Your task to perform on an android device: Search for the best rated headphones on Walmart Image 0: 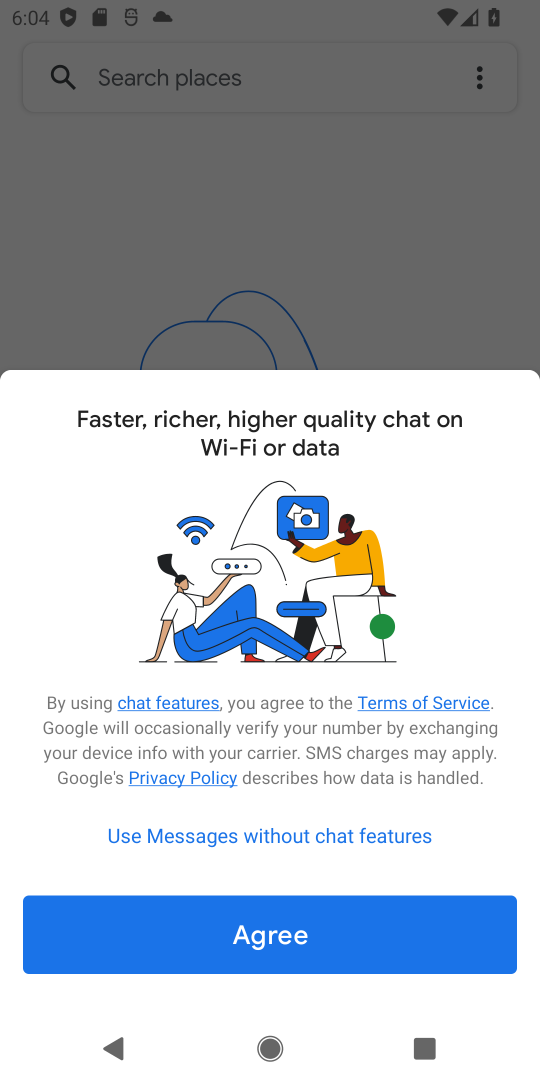
Step 0: press home button
Your task to perform on an android device: Search for the best rated headphones on Walmart Image 1: 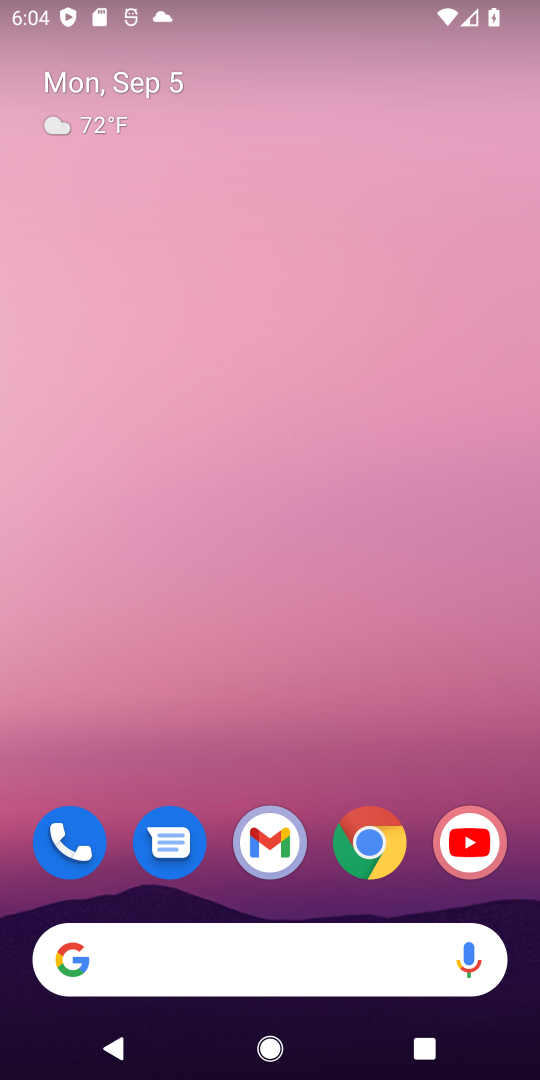
Step 1: click (367, 838)
Your task to perform on an android device: Search for the best rated headphones on Walmart Image 2: 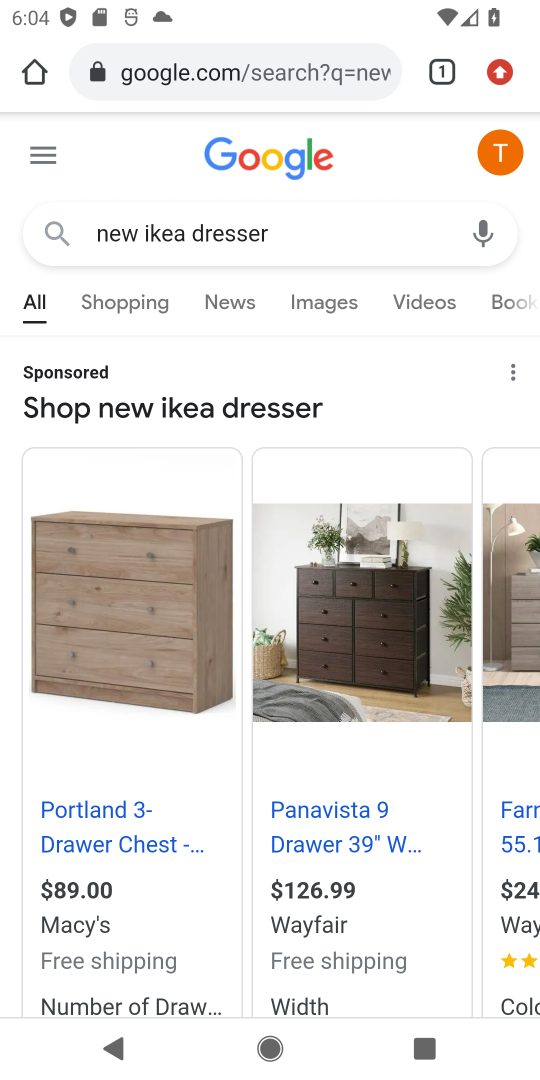
Step 2: click (388, 228)
Your task to perform on an android device: Search for the best rated headphones on Walmart Image 3: 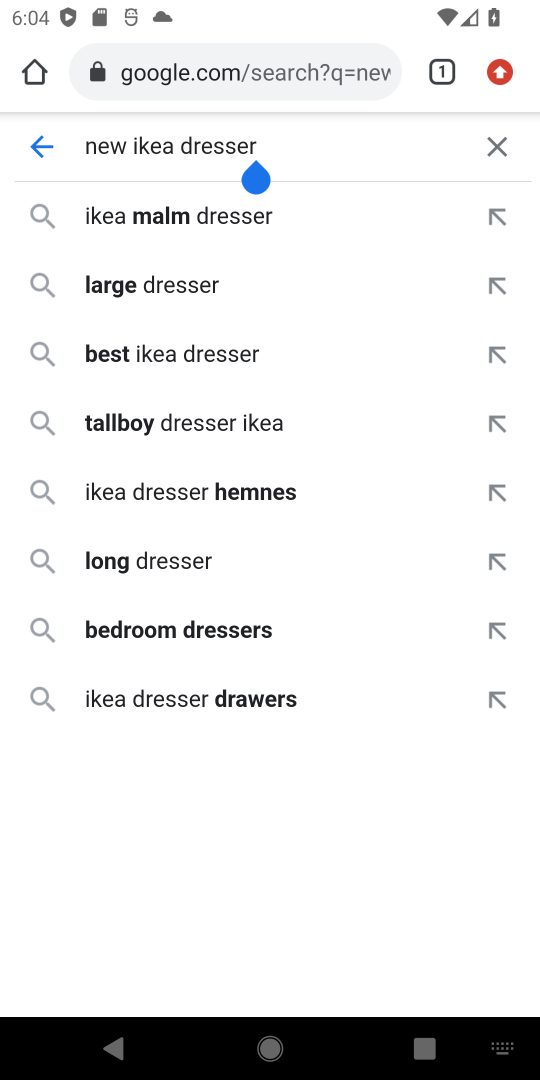
Step 3: click (322, 72)
Your task to perform on an android device: Search for the best rated headphones on Walmart Image 4: 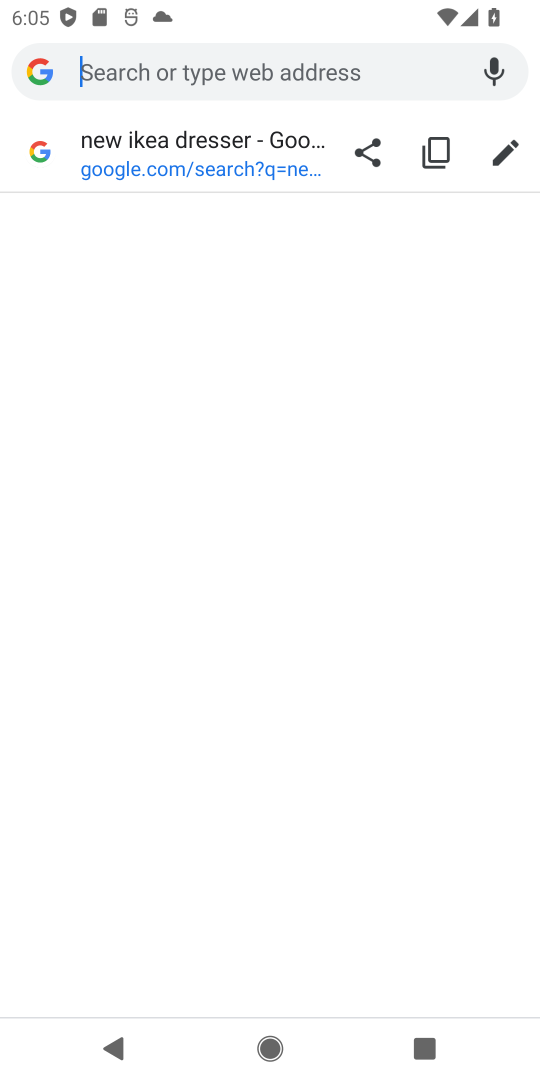
Step 4: type "Walamrt"
Your task to perform on an android device: Search for the best rated headphones on Walmart Image 5: 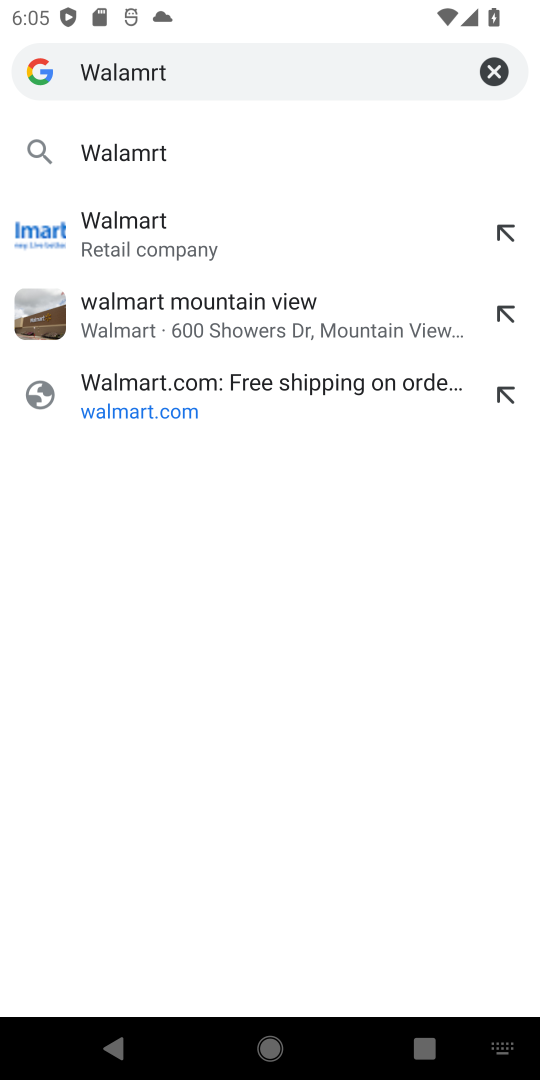
Step 5: click (144, 161)
Your task to perform on an android device: Search for the best rated headphones on Walmart Image 6: 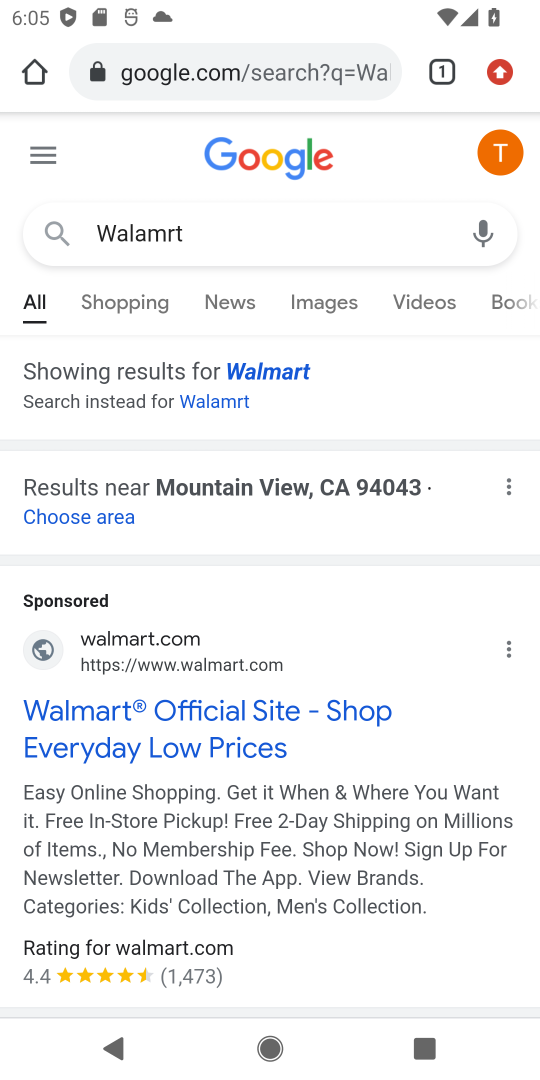
Step 6: drag from (316, 661) to (354, 377)
Your task to perform on an android device: Search for the best rated headphones on Walmart Image 7: 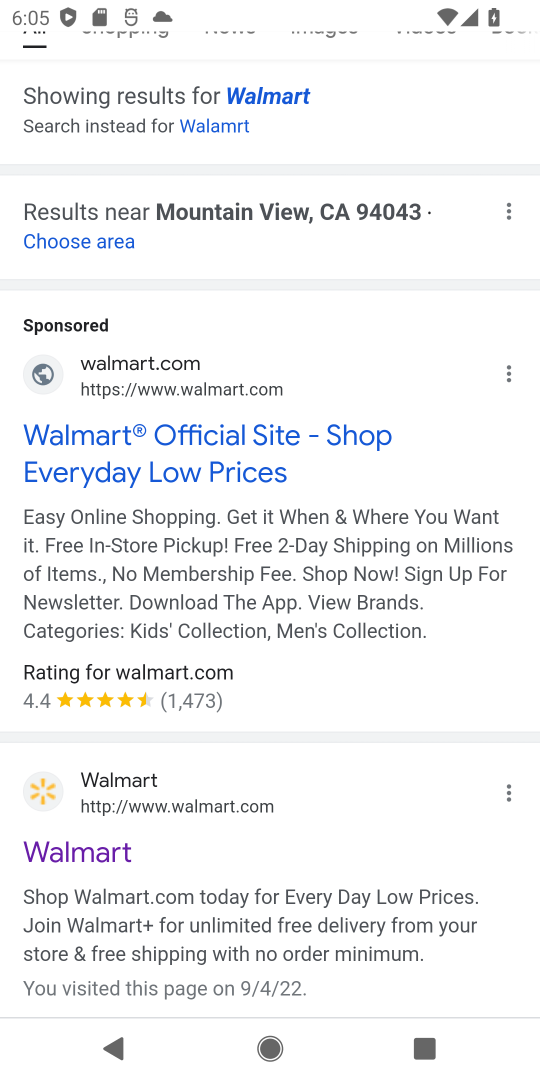
Step 7: click (164, 857)
Your task to perform on an android device: Search for the best rated headphones on Walmart Image 8: 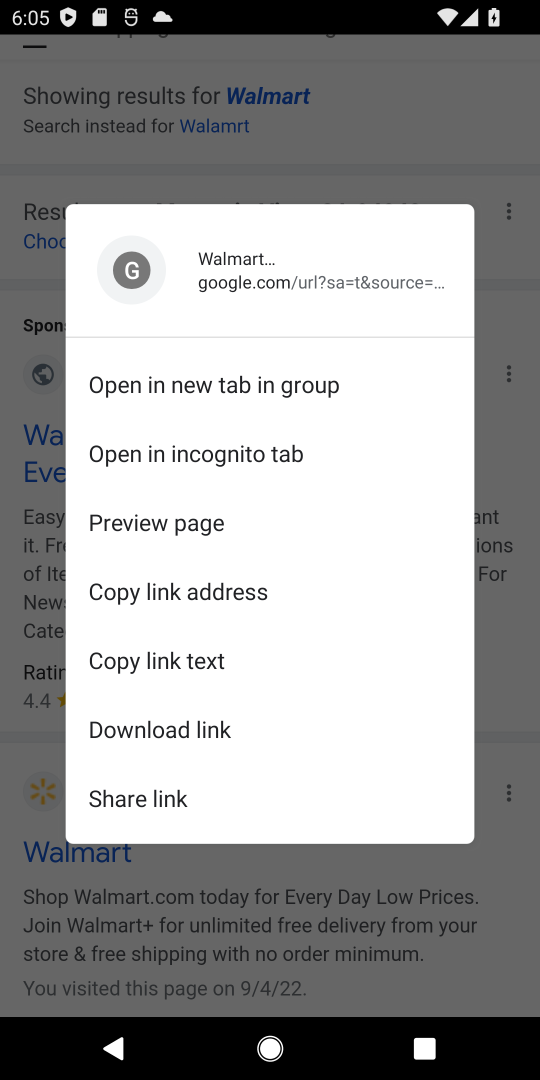
Step 8: click (164, 857)
Your task to perform on an android device: Search for the best rated headphones on Walmart Image 9: 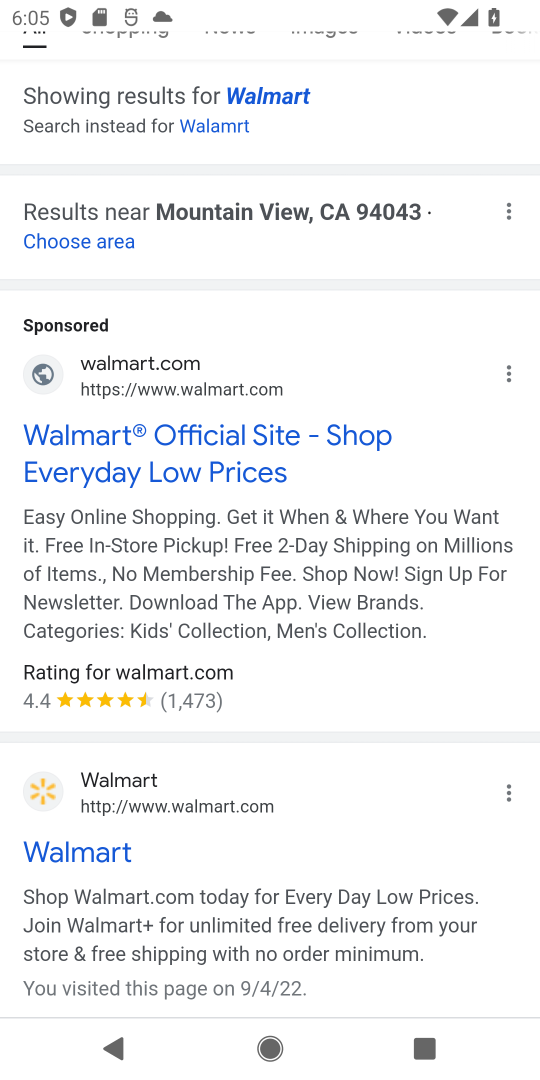
Step 9: click (119, 868)
Your task to perform on an android device: Search for the best rated headphones on Walmart Image 10: 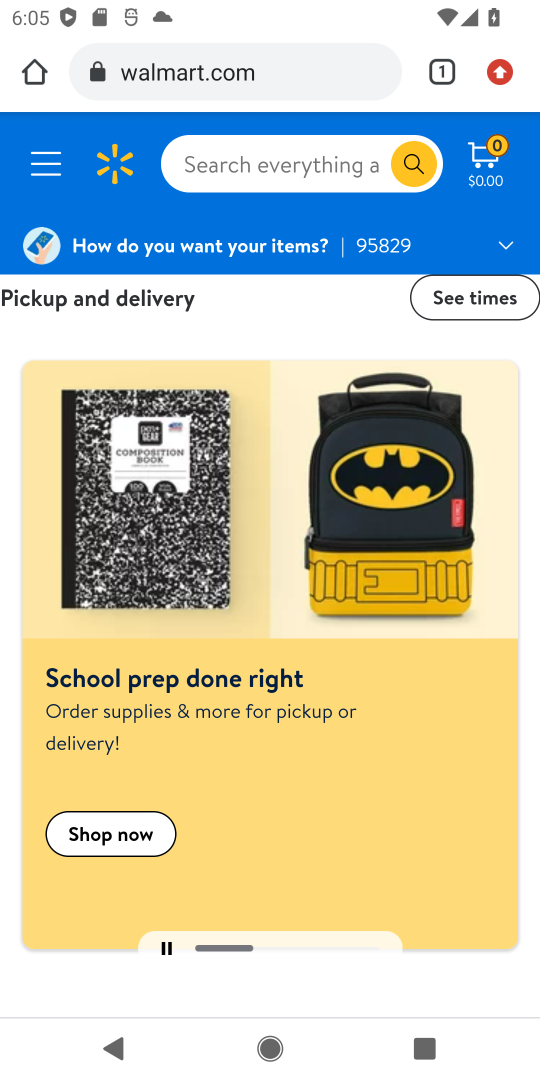
Step 10: click (286, 162)
Your task to perform on an android device: Search for the best rated headphones on Walmart Image 11: 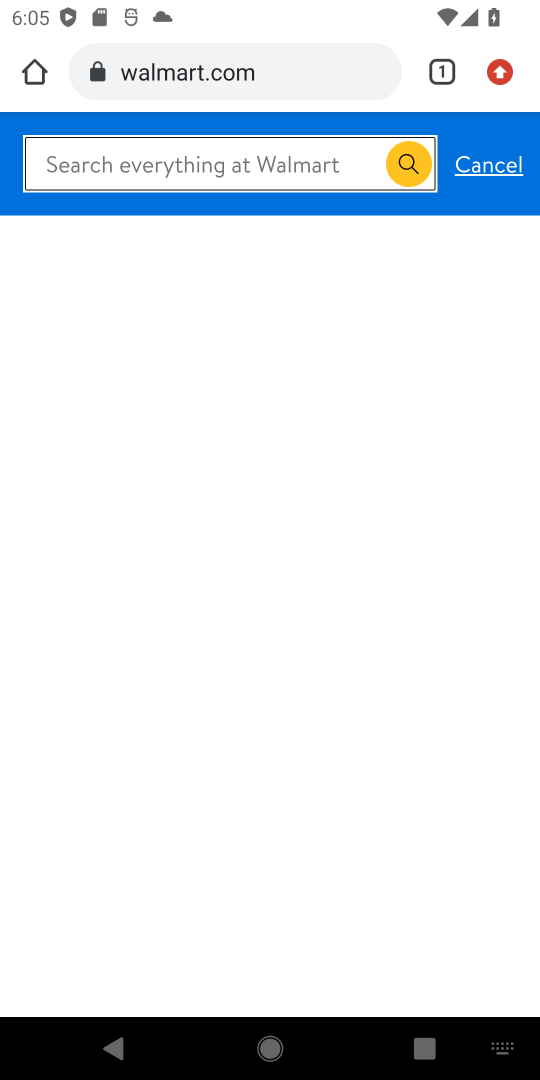
Step 11: type "best rated headphones"
Your task to perform on an android device: Search for the best rated headphones on Walmart Image 12: 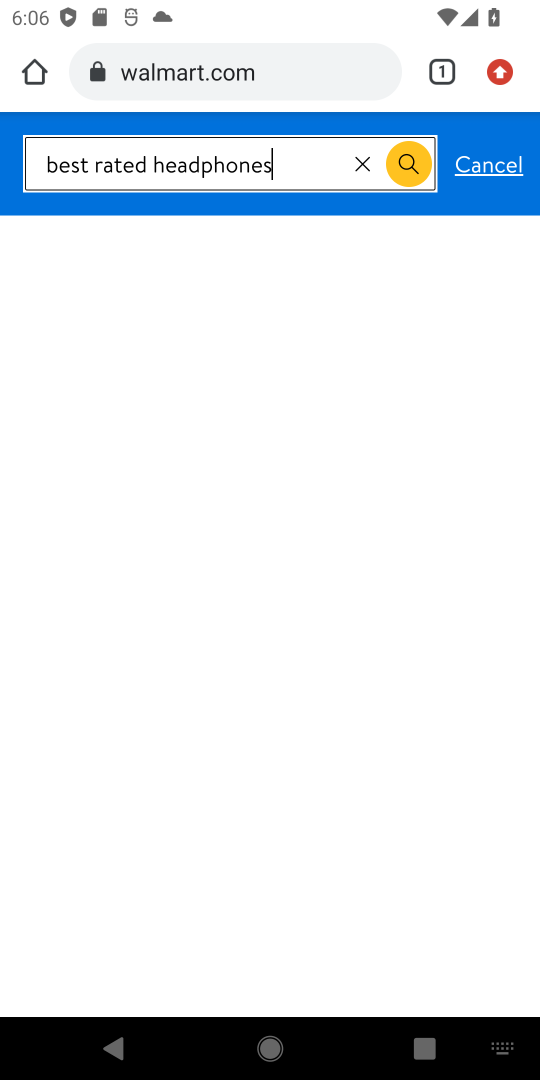
Step 12: click (413, 168)
Your task to perform on an android device: Search for the best rated headphones on Walmart Image 13: 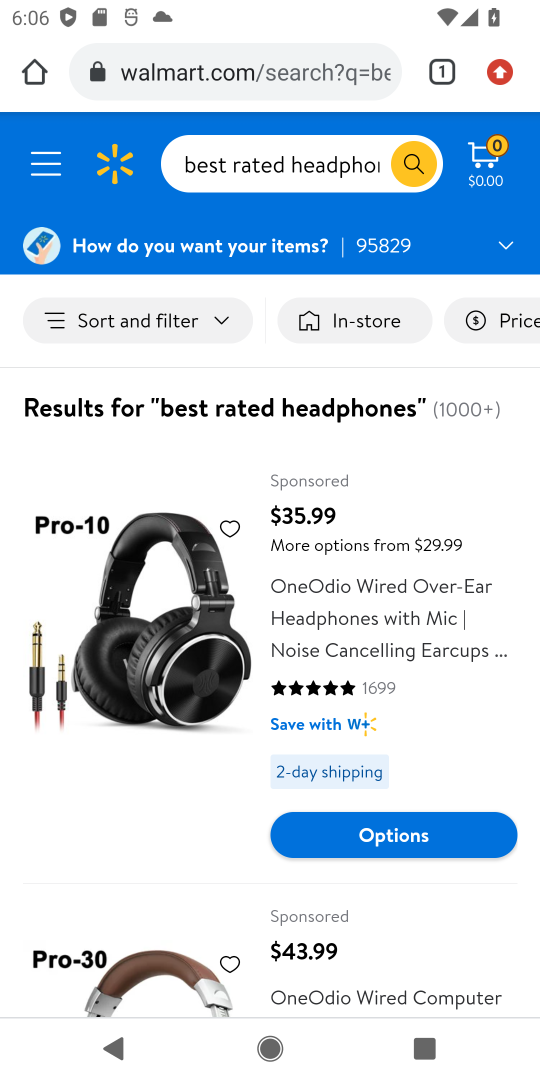
Step 13: task complete